Your task to perform on an android device: Open calendar and show me the second week of next month Image 0: 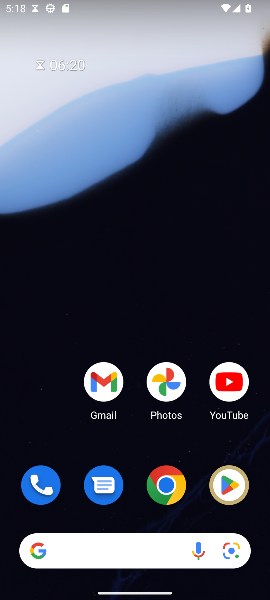
Step 0: drag from (121, 457) to (136, 39)
Your task to perform on an android device: Open calendar and show me the second week of next month Image 1: 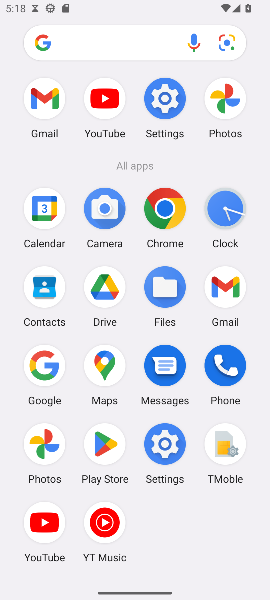
Step 1: click (40, 231)
Your task to perform on an android device: Open calendar and show me the second week of next month Image 2: 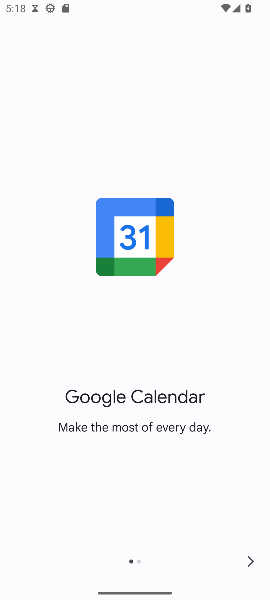
Step 2: click (242, 558)
Your task to perform on an android device: Open calendar and show me the second week of next month Image 3: 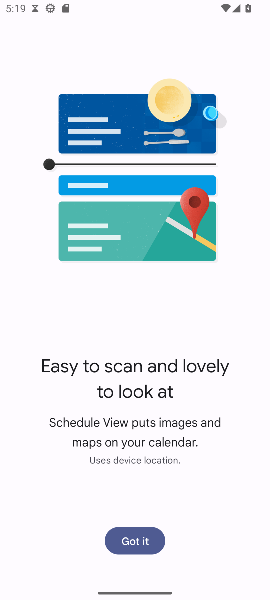
Step 3: click (143, 548)
Your task to perform on an android device: Open calendar and show me the second week of next month Image 4: 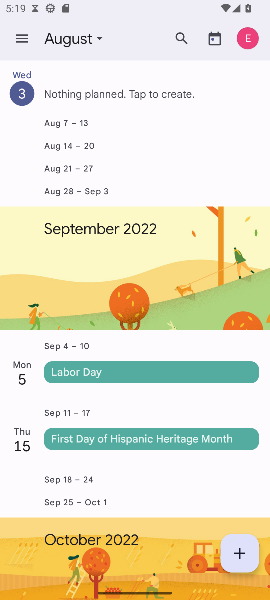
Step 4: click (17, 39)
Your task to perform on an android device: Open calendar and show me the second week of next month Image 5: 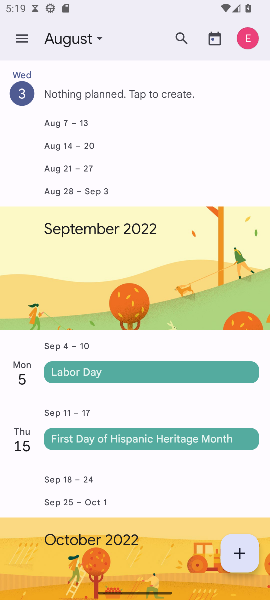
Step 5: click (14, 41)
Your task to perform on an android device: Open calendar and show me the second week of next month Image 6: 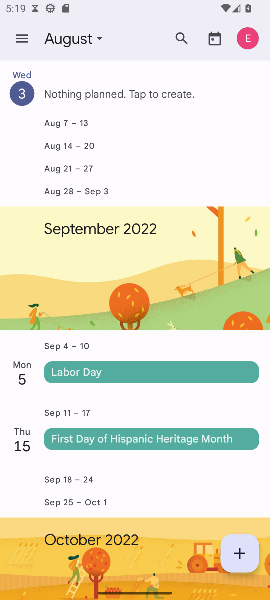
Step 6: click (19, 38)
Your task to perform on an android device: Open calendar and show me the second week of next month Image 7: 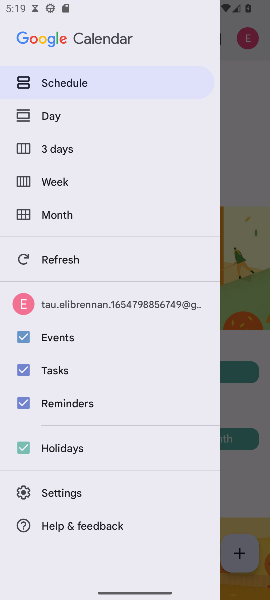
Step 7: click (57, 188)
Your task to perform on an android device: Open calendar and show me the second week of next month Image 8: 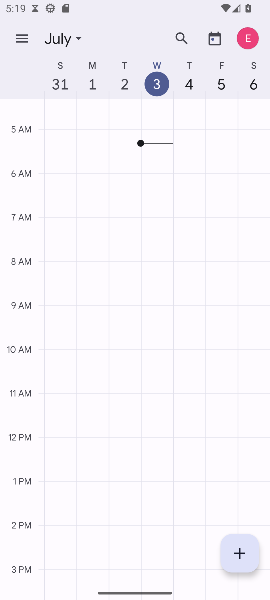
Step 8: click (69, 42)
Your task to perform on an android device: Open calendar and show me the second week of next month Image 9: 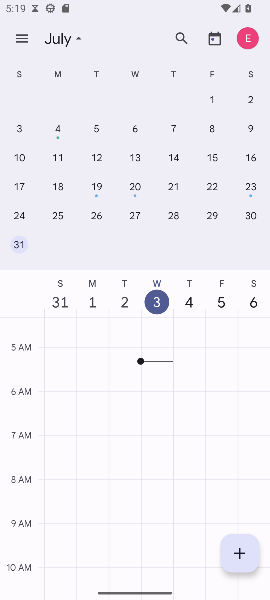
Step 9: task complete